Your task to perform on an android device: Show me popular games on the Play Store Image 0: 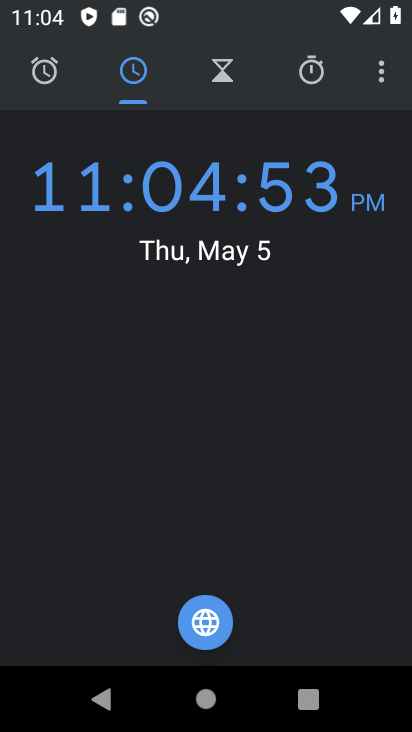
Step 0: press home button
Your task to perform on an android device: Show me popular games on the Play Store Image 1: 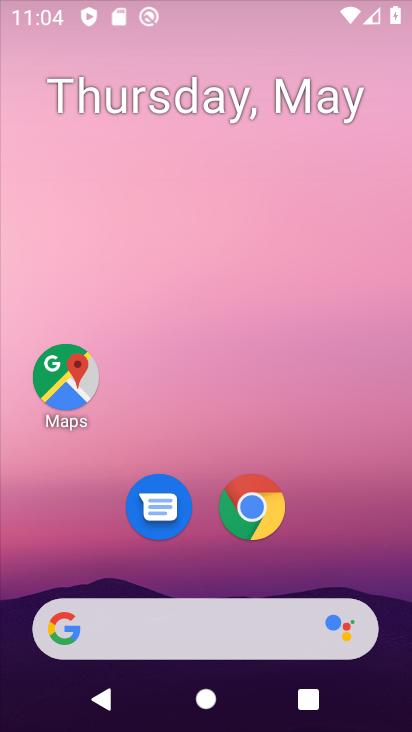
Step 1: drag from (245, 650) to (222, 0)
Your task to perform on an android device: Show me popular games on the Play Store Image 2: 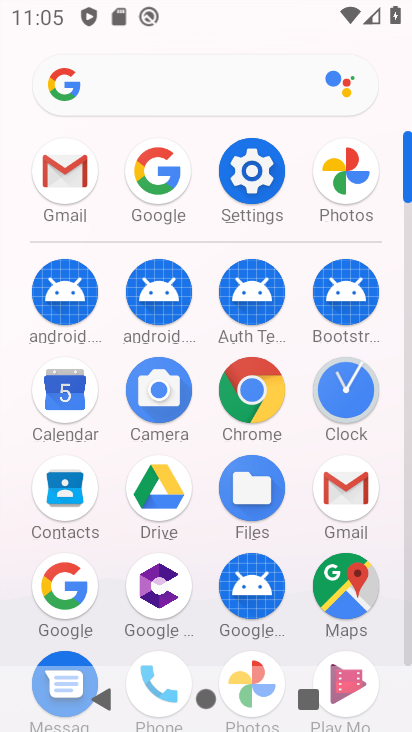
Step 2: drag from (257, 483) to (238, 156)
Your task to perform on an android device: Show me popular games on the Play Store Image 3: 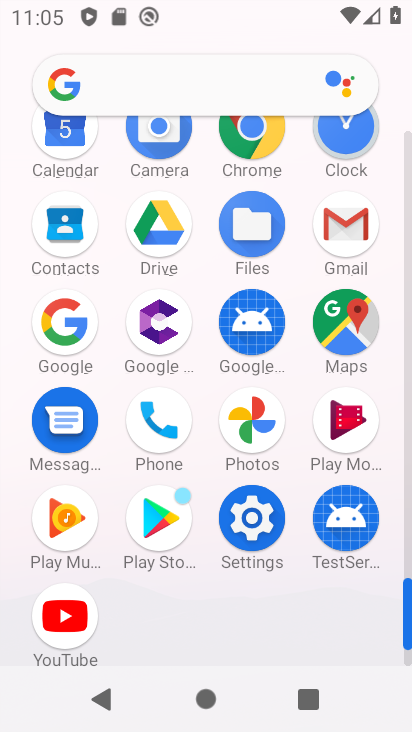
Step 3: click (149, 524)
Your task to perform on an android device: Show me popular games on the Play Store Image 4: 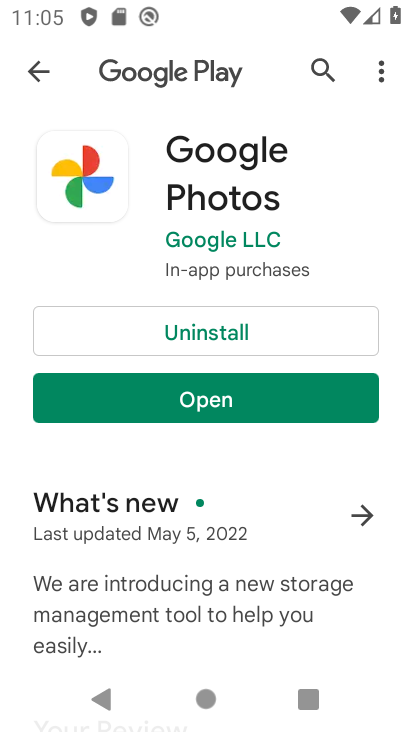
Step 4: click (46, 79)
Your task to perform on an android device: Show me popular games on the Play Store Image 5: 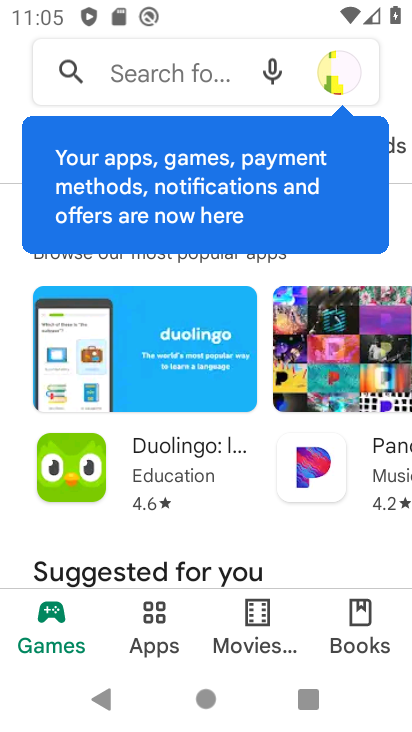
Step 5: task complete